Your task to perform on an android device: toggle pop-ups in chrome Image 0: 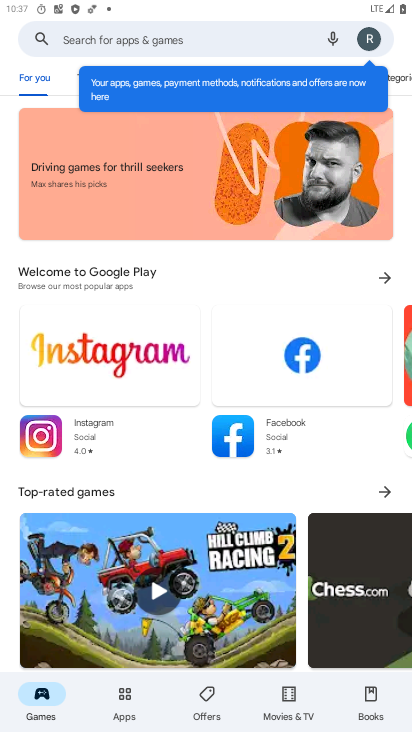
Step 0: press home button
Your task to perform on an android device: toggle pop-ups in chrome Image 1: 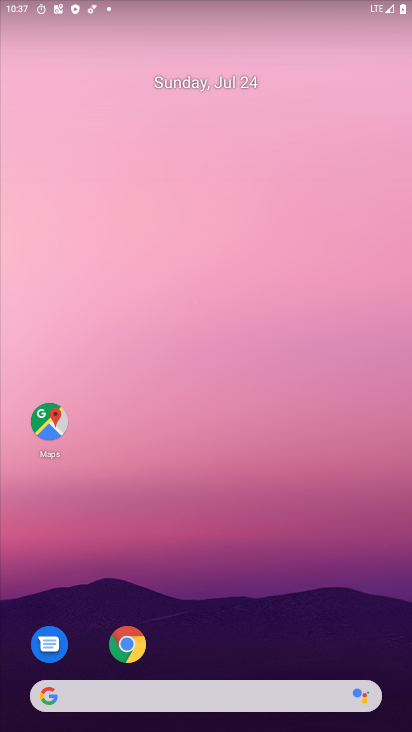
Step 1: click (127, 652)
Your task to perform on an android device: toggle pop-ups in chrome Image 2: 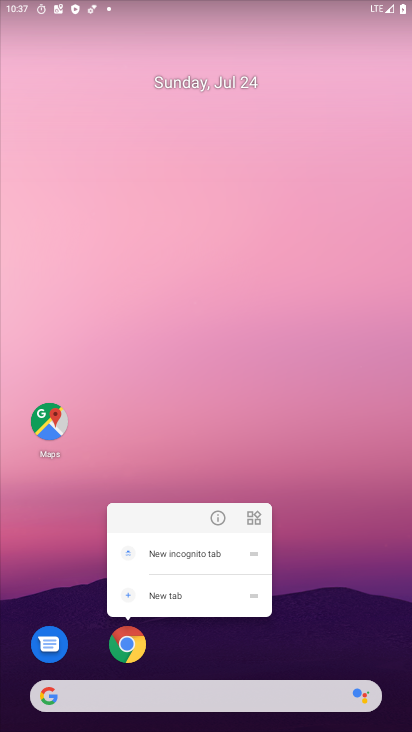
Step 2: click (127, 652)
Your task to perform on an android device: toggle pop-ups in chrome Image 3: 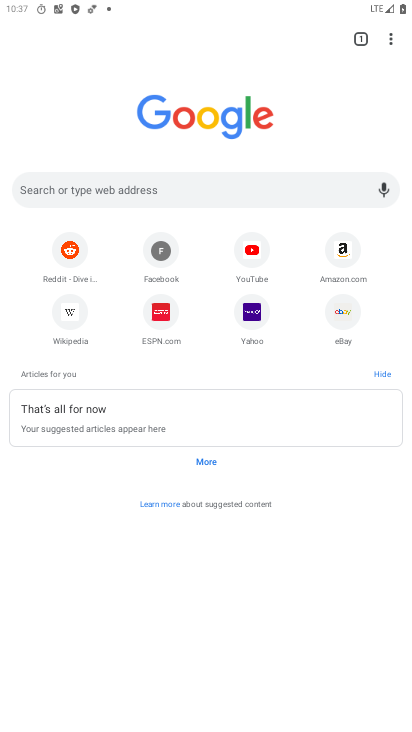
Step 3: click (392, 42)
Your task to perform on an android device: toggle pop-ups in chrome Image 4: 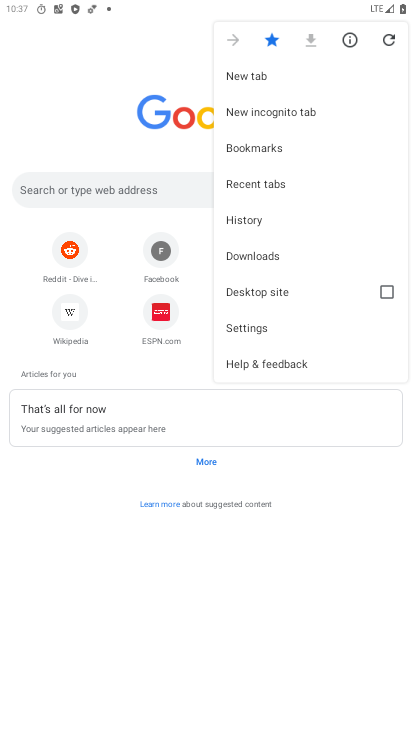
Step 4: click (248, 333)
Your task to perform on an android device: toggle pop-ups in chrome Image 5: 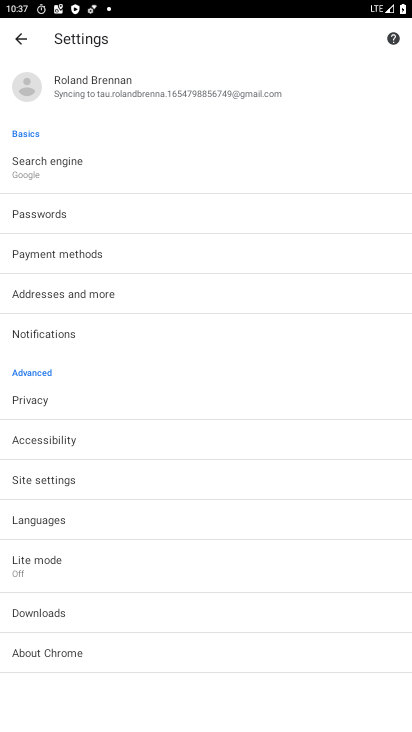
Step 5: click (44, 479)
Your task to perform on an android device: toggle pop-ups in chrome Image 6: 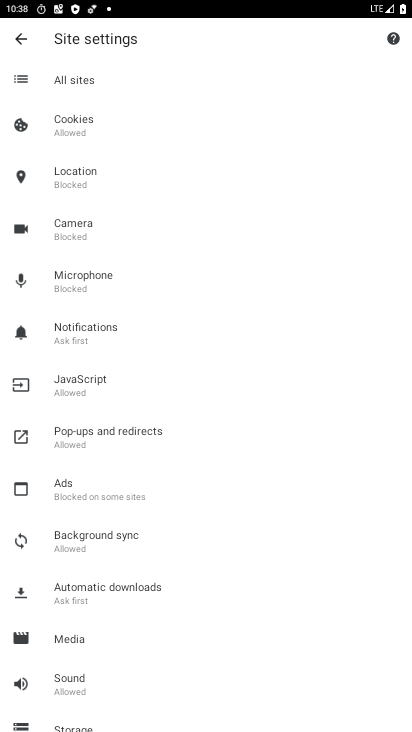
Step 6: click (120, 438)
Your task to perform on an android device: toggle pop-ups in chrome Image 7: 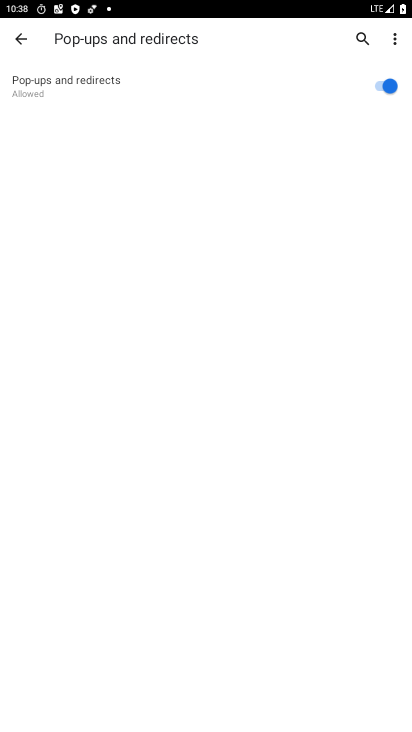
Step 7: click (379, 91)
Your task to perform on an android device: toggle pop-ups in chrome Image 8: 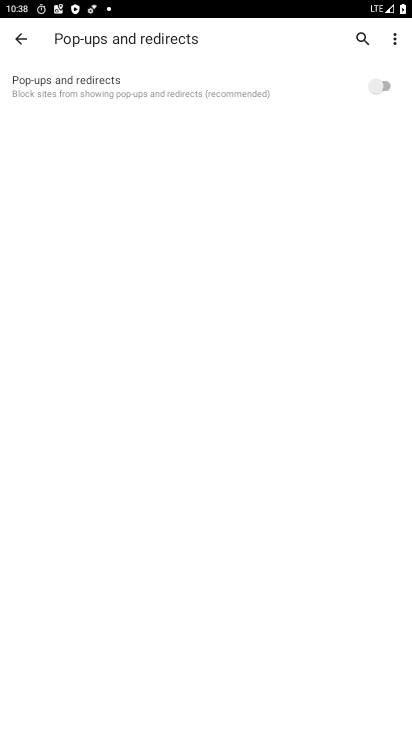
Step 8: task complete